Your task to perform on an android device: open app "LinkedIn" (install if not already installed) Image 0: 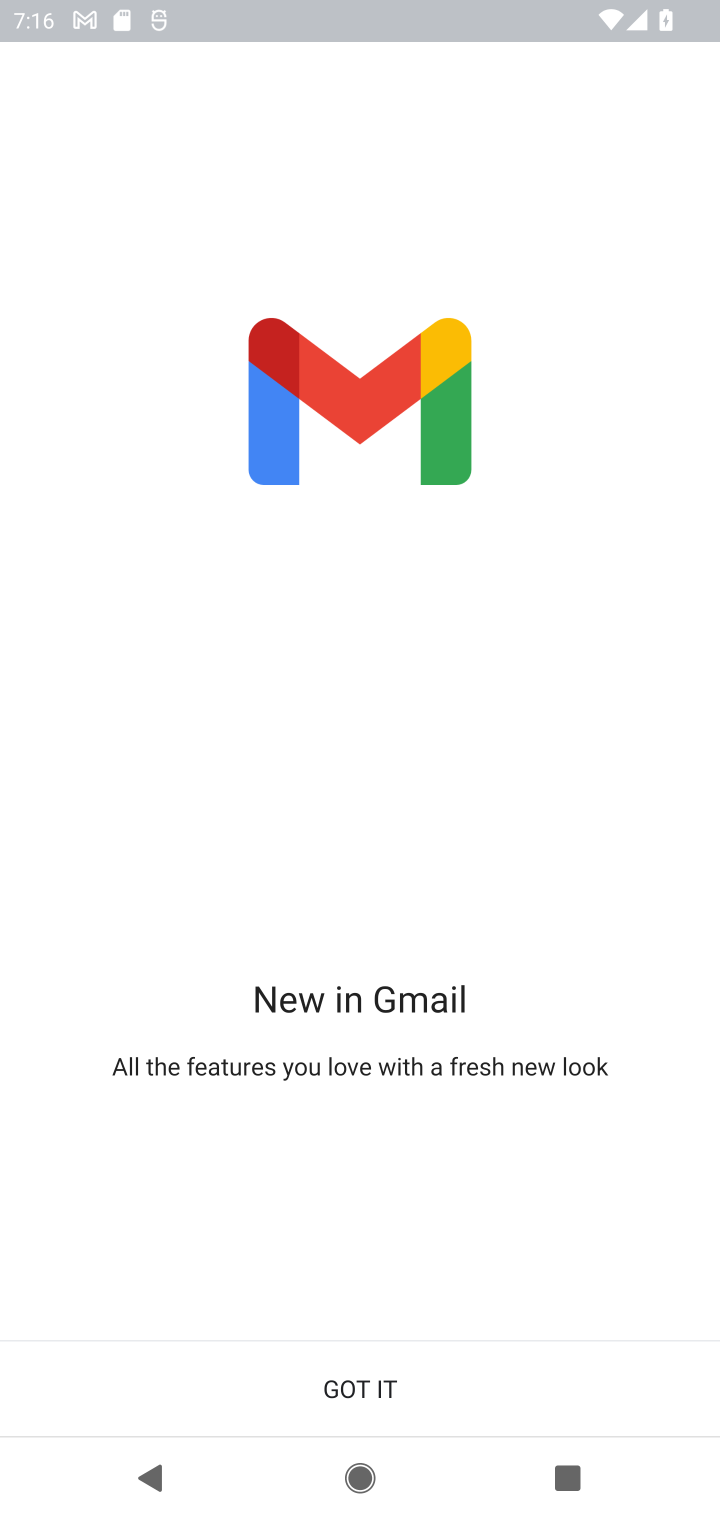
Step 0: press home button
Your task to perform on an android device: open app "LinkedIn" (install if not already installed) Image 1: 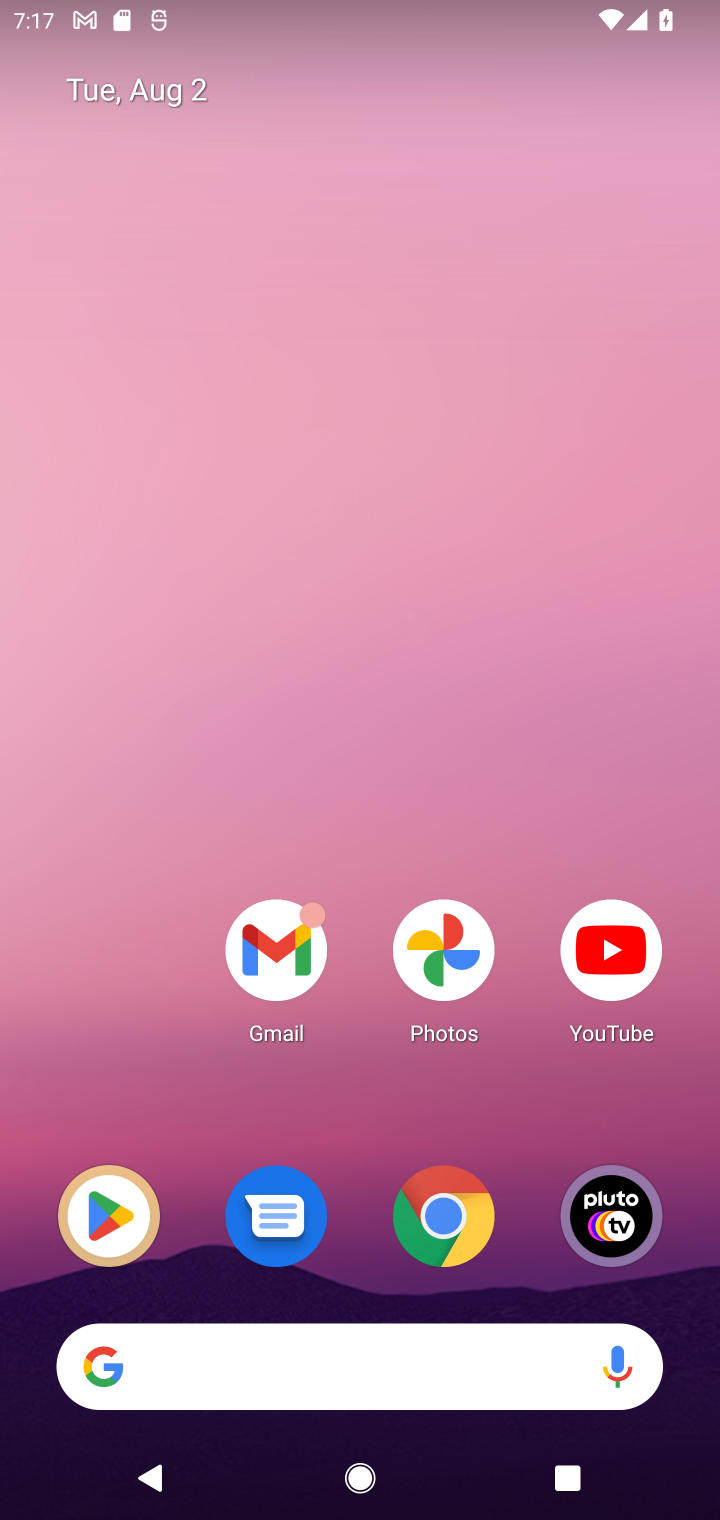
Step 1: click (110, 1222)
Your task to perform on an android device: open app "LinkedIn" (install if not already installed) Image 2: 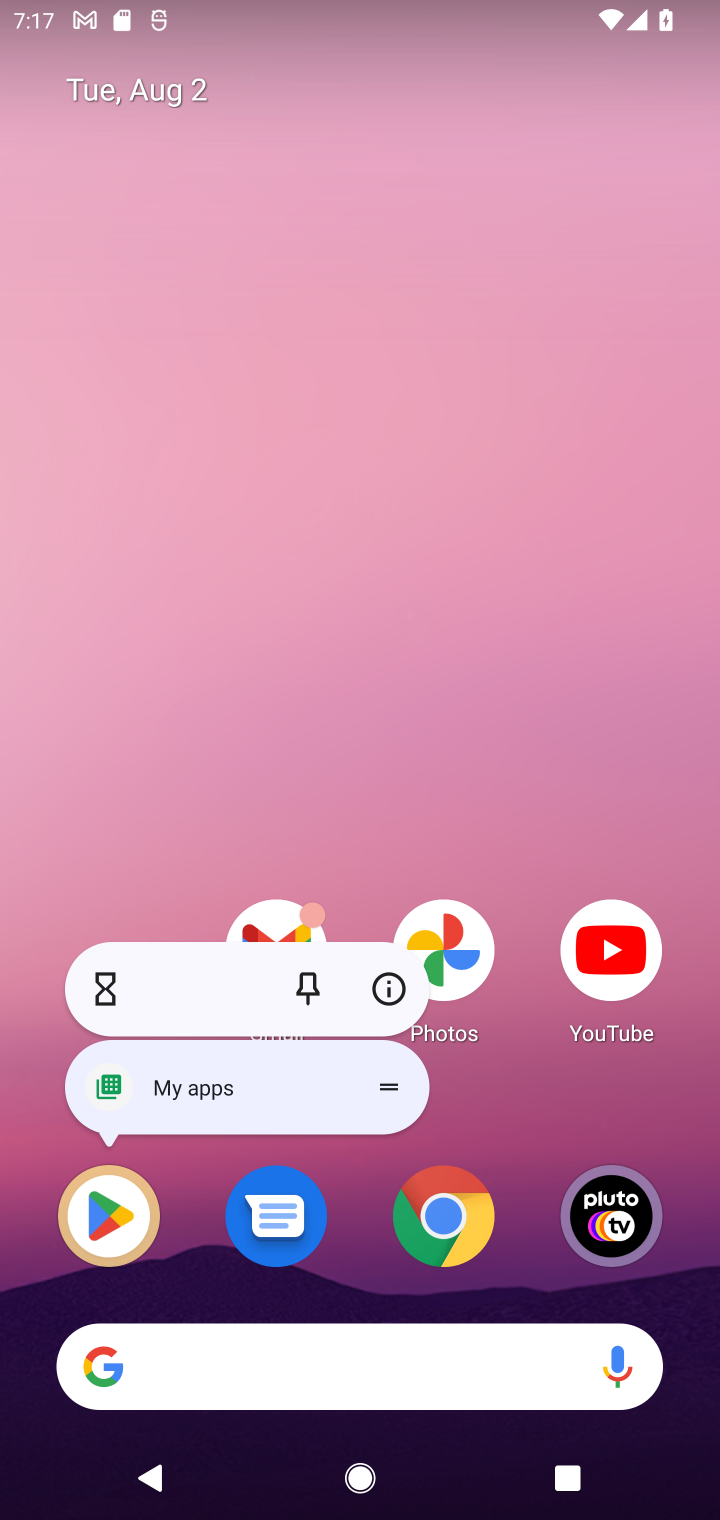
Step 2: click (108, 1222)
Your task to perform on an android device: open app "LinkedIn" (install if not already installed) Image 3: 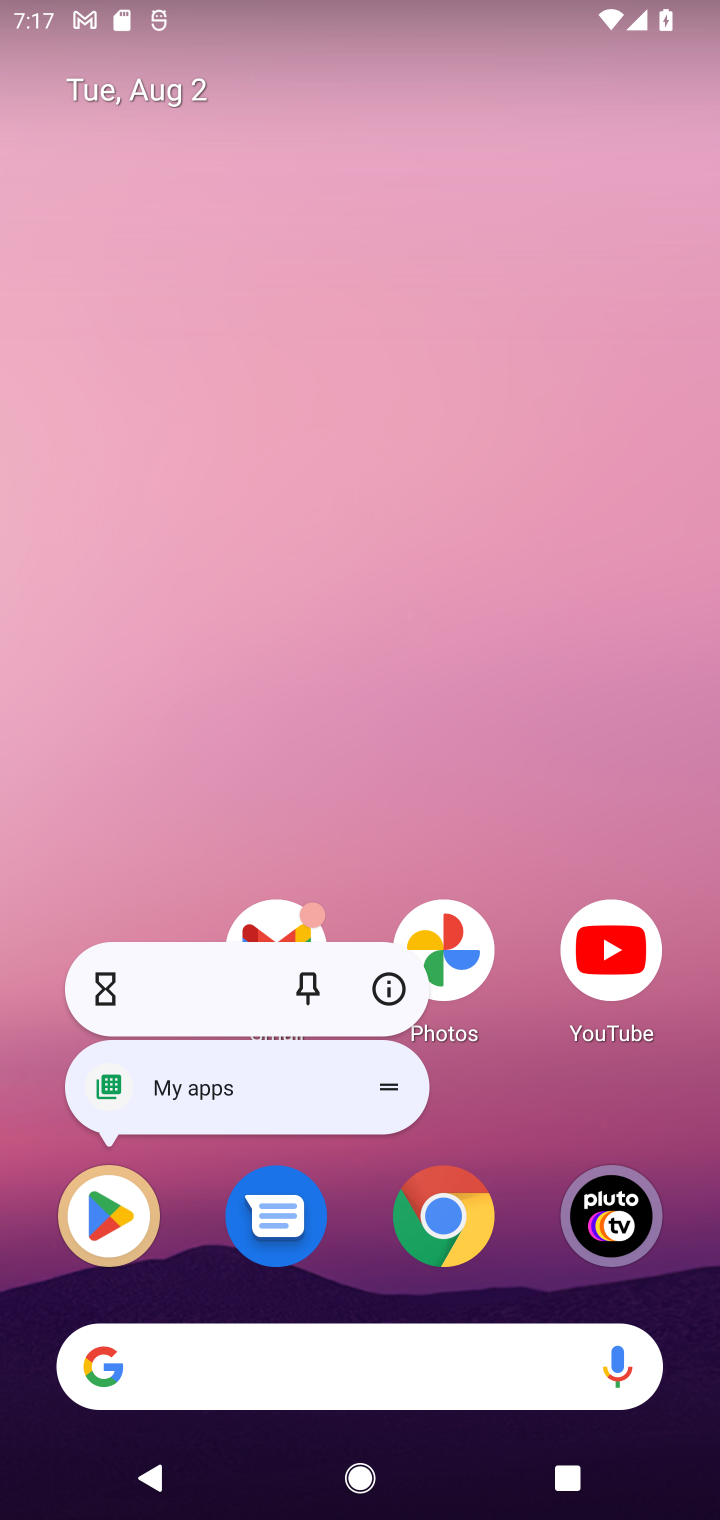
Step 3: click (122, 1194)
Your task to perform on an android device: open app "LinkedIn" (install if not already installed) Image 4: 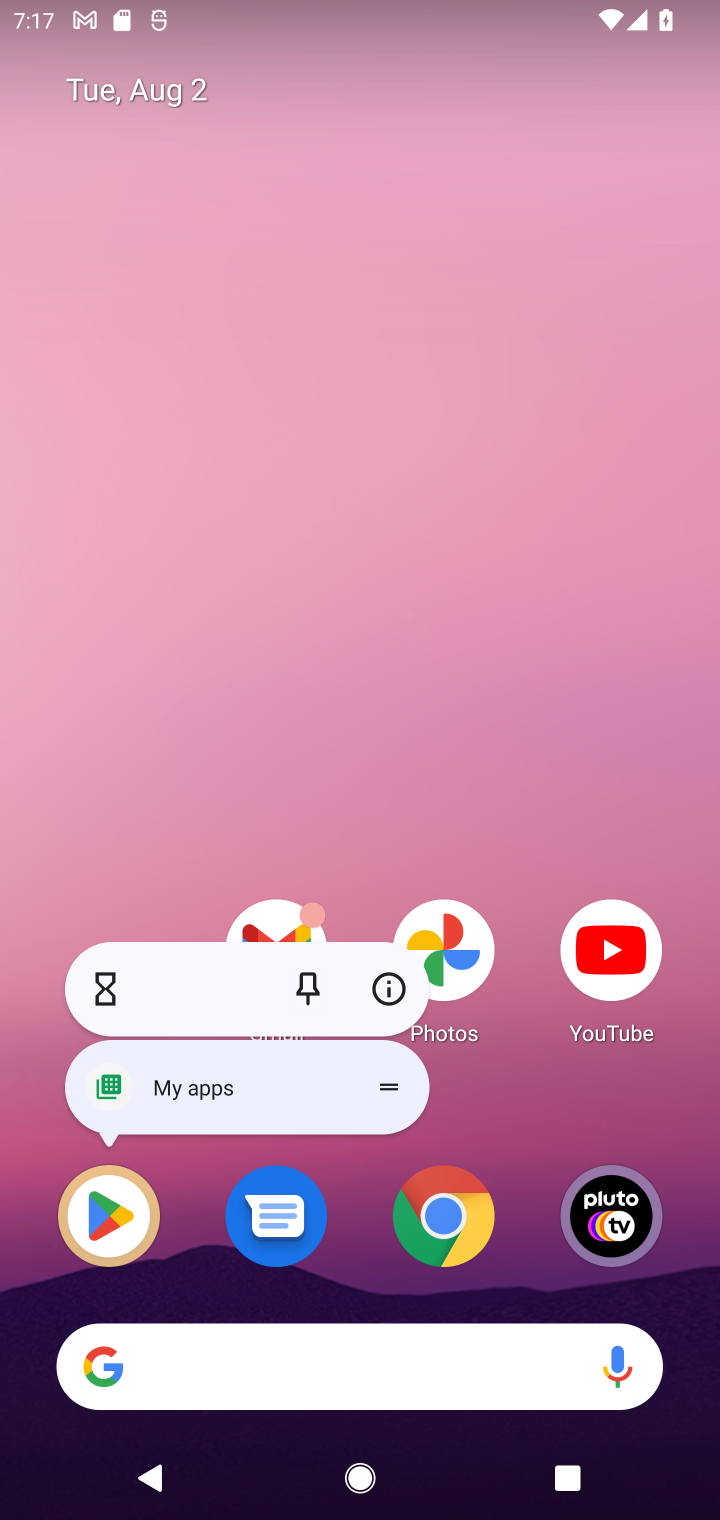
Step 4: click (89, 1221)
Your task to perform on an android device: open app "LinkedIn" (install if not already installed) Image 5: 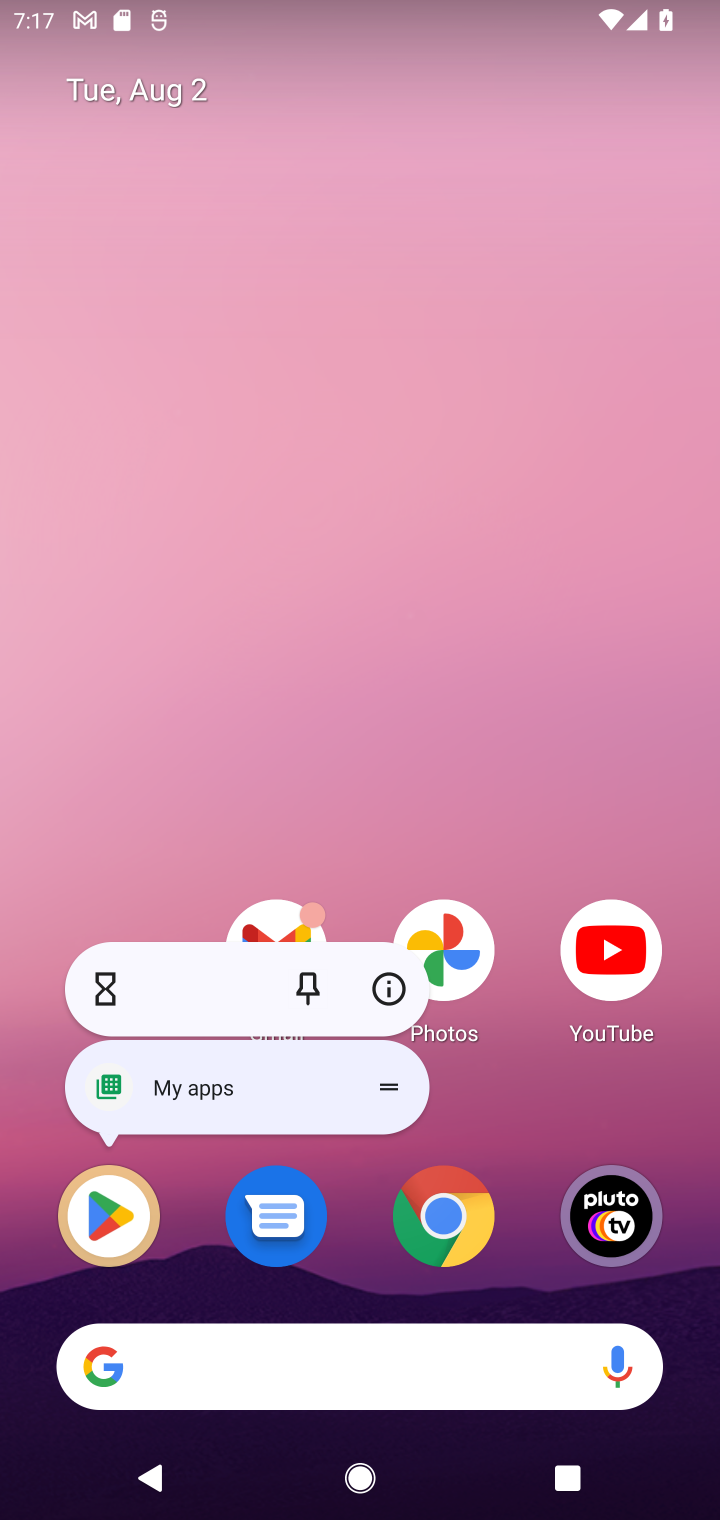
Step 5: click (114, 1208)
Your task to perform on an android device: open app "LinkedIn" (install if not already installed) Image 6: 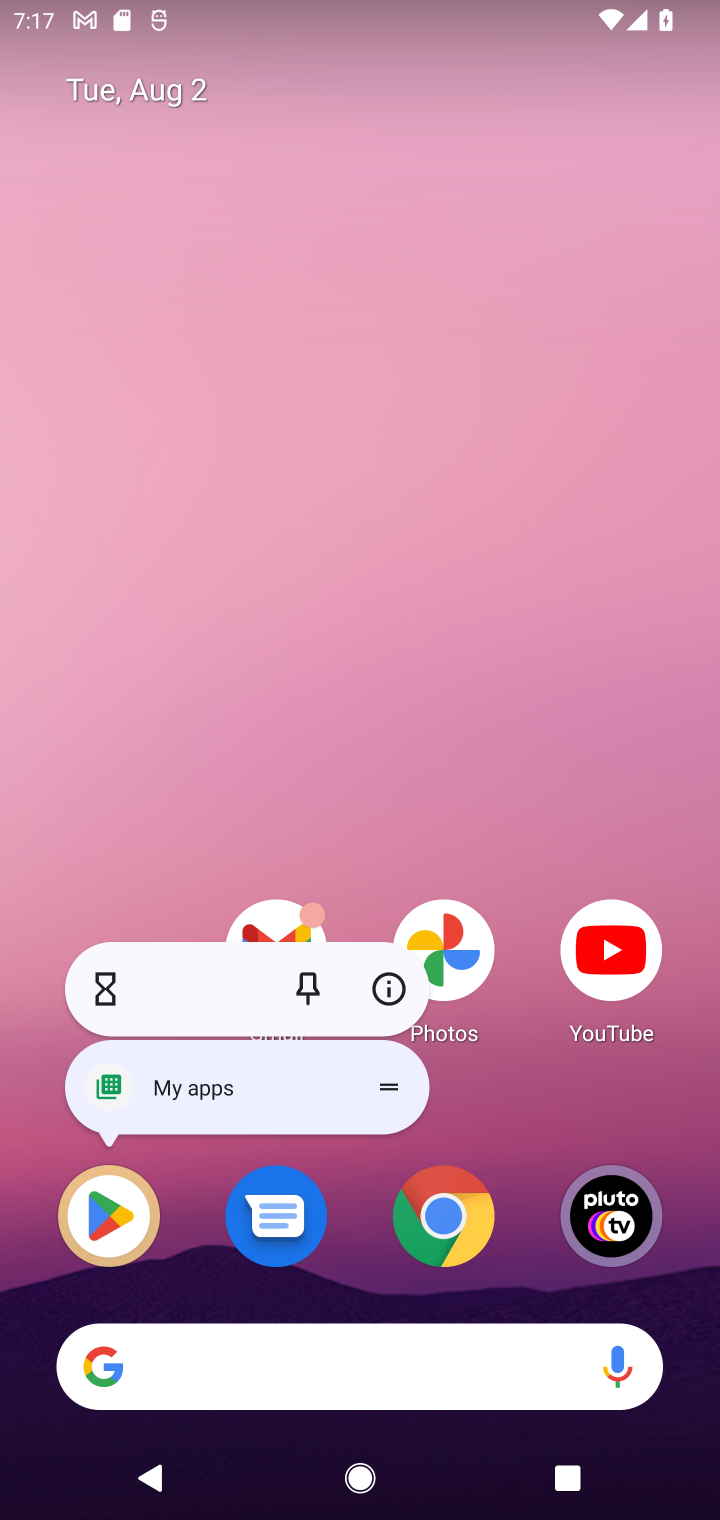
Step 6: click (114, 1213)
Your task to perform on an android device: open app "LinkedIn" (install if not already installed) Image 7: 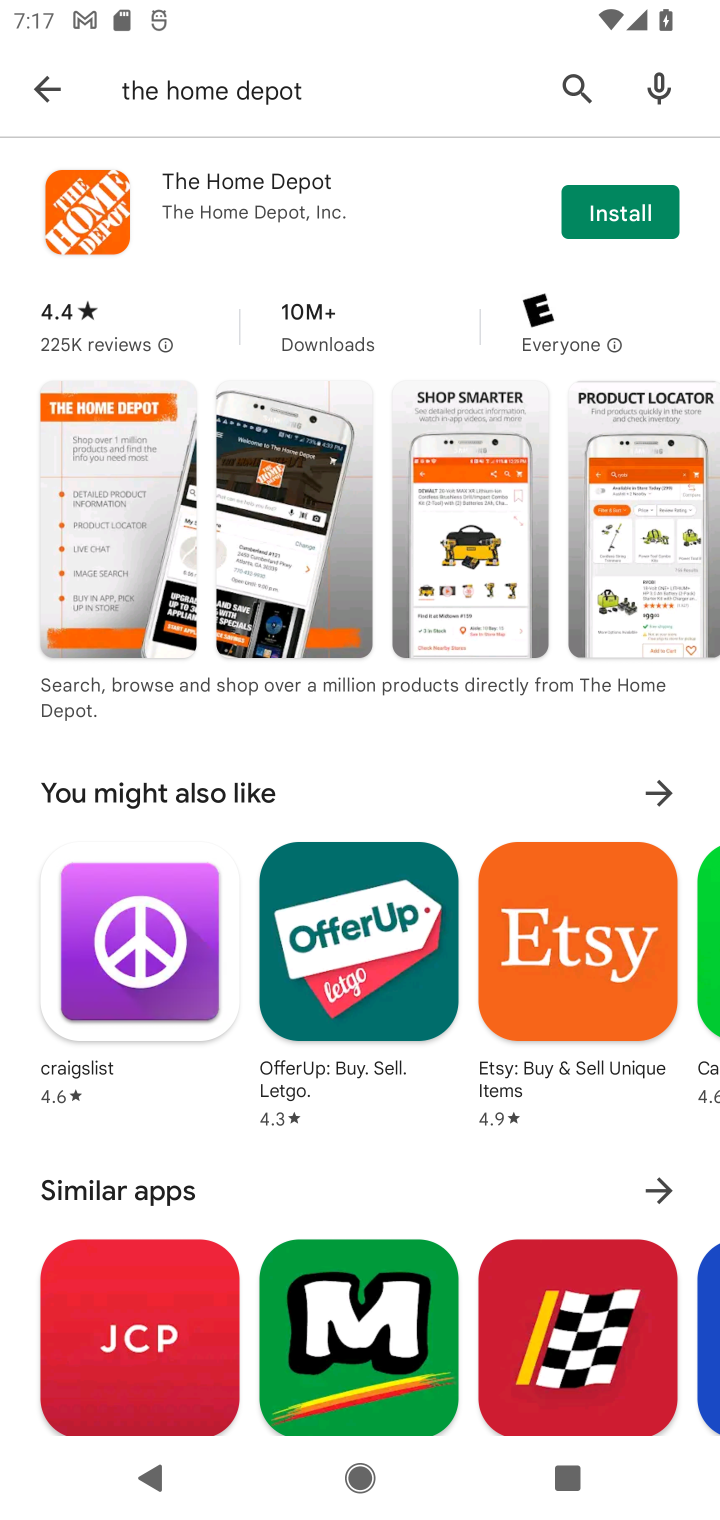
Step 7: click (578, 80)
Your task to perform on an android device: open app "LinkedIn" (install if not already installed) Image 8: 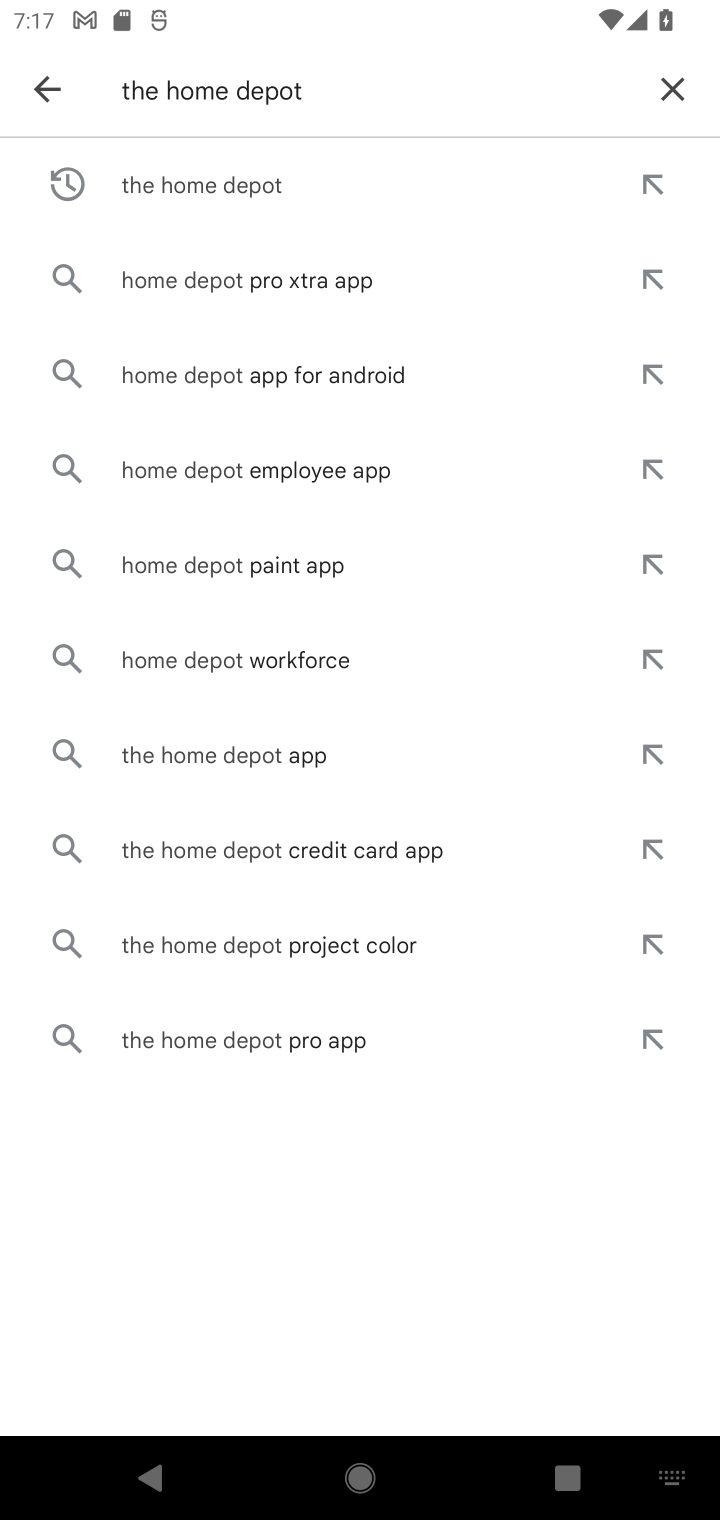
Step 8: click (675, 88)
Your task to perform on an android device: open app "LinkedIn" (install if not already installed) Image 9: 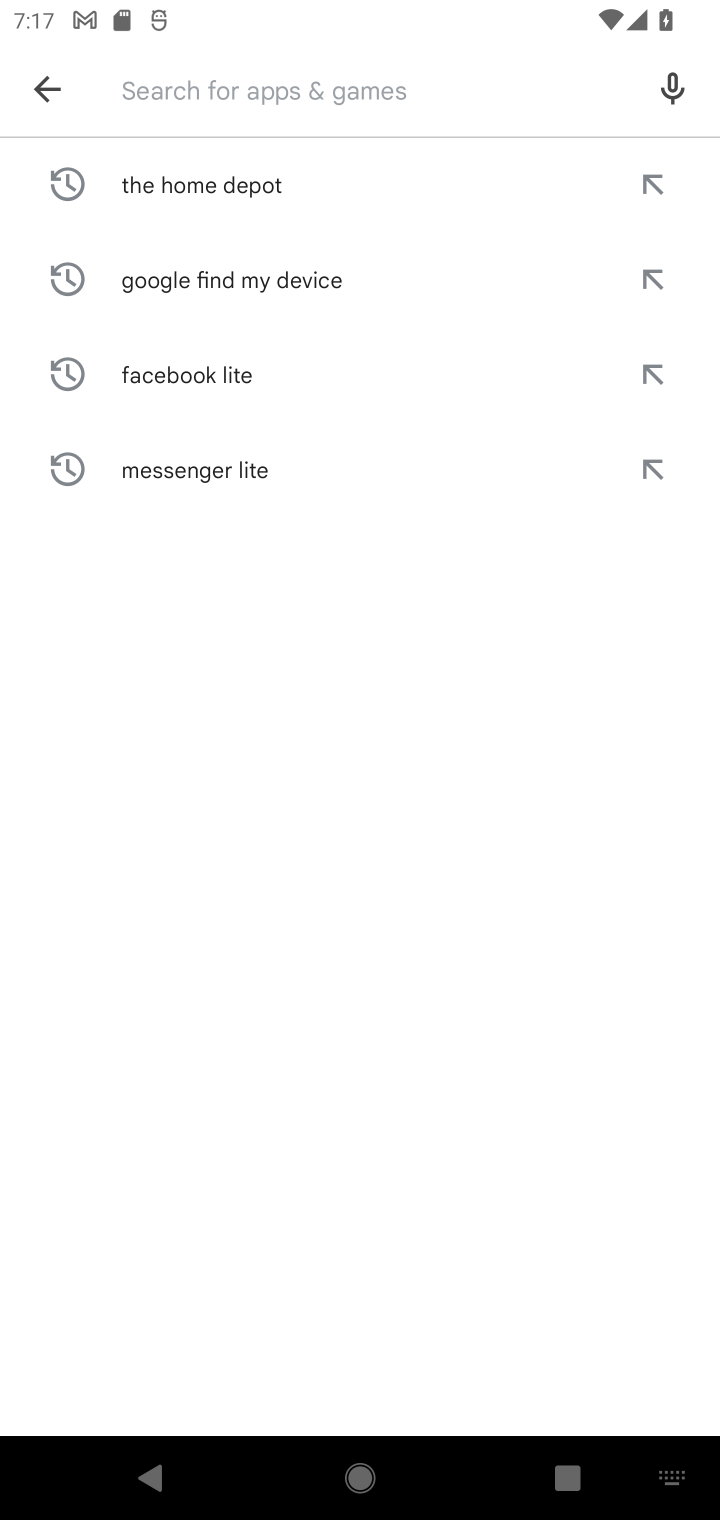
Step 9: type "LinkedIn"
Your task to perform on an android device: open app "LinkedIn" (install if not already installed) Image 10: 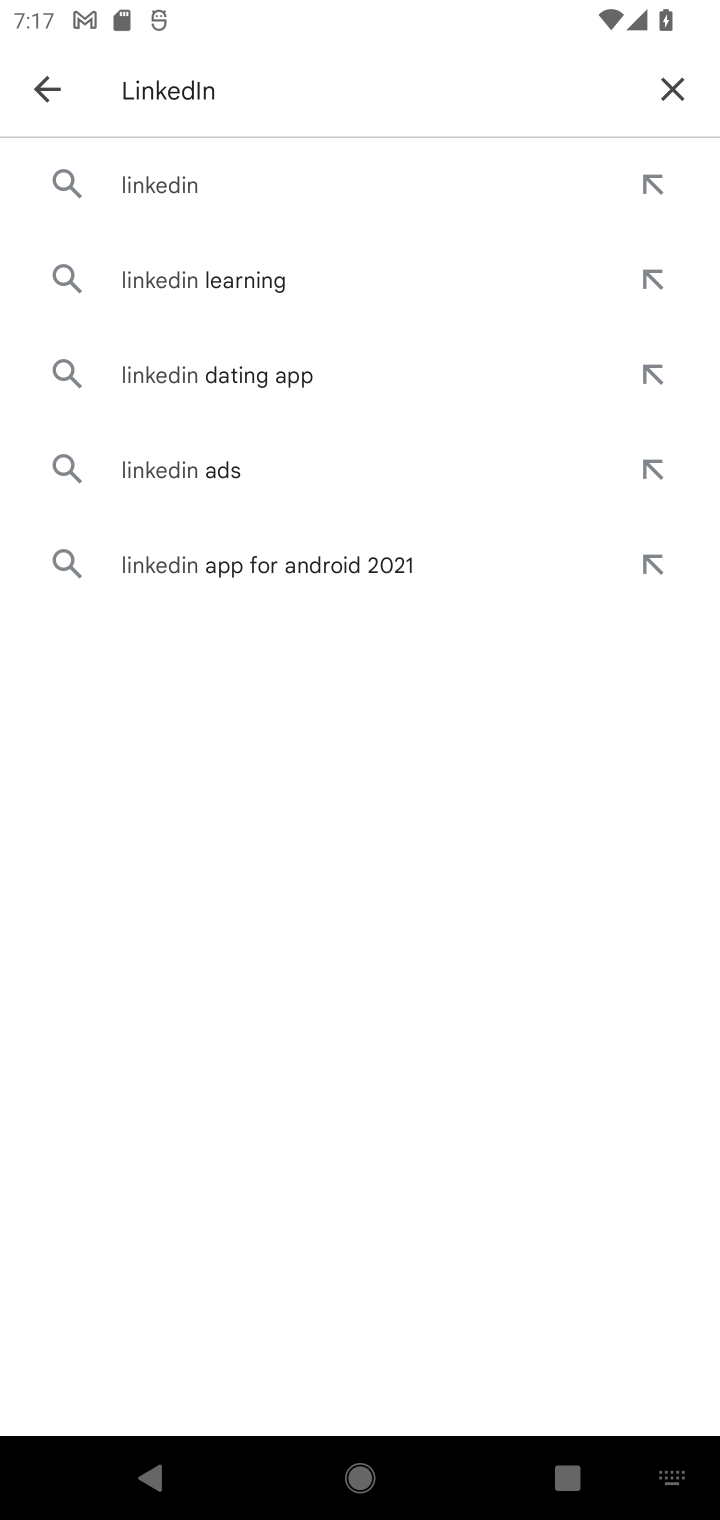
Step 10: click (160, 186)
Your task to perform on an android device: open app "LinkedIn" (install if not already installed) Image 11: 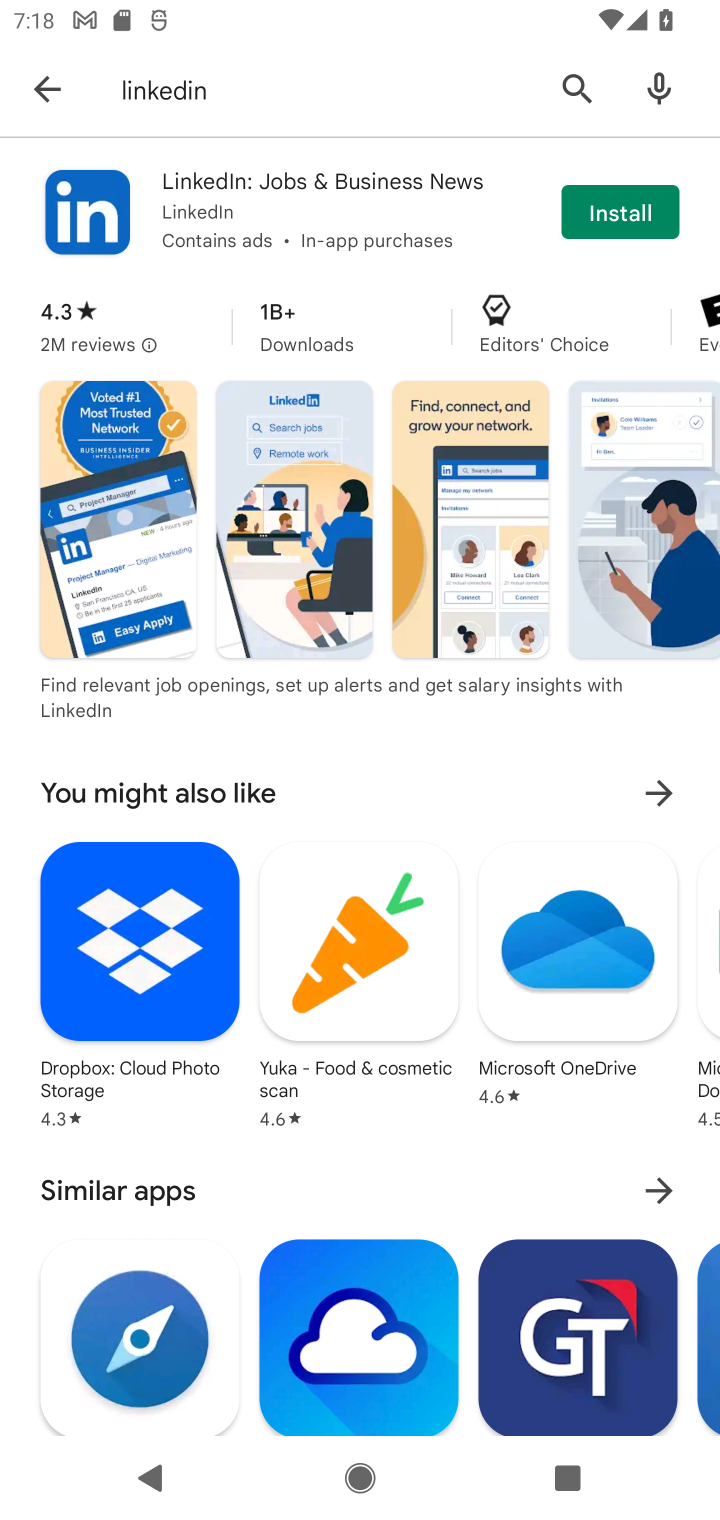
Step 11: click (643, 214)
Your task to perform on an android device: open app "LinkedIn" (install if not already installed) Image 12: 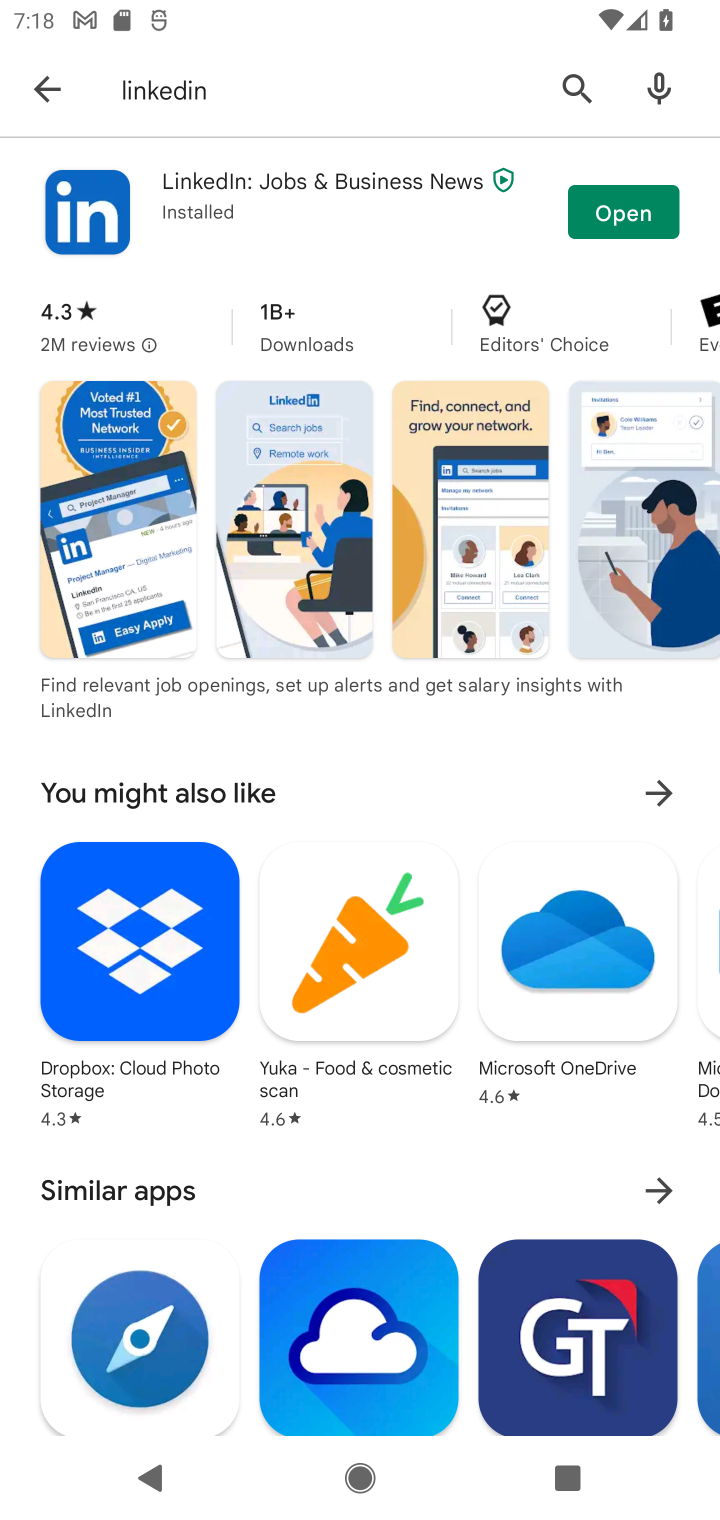
Step 12: click (611, 216)
Your task to perform on an android device: open app "LinkedIn" (install if not already installed) Image 13: 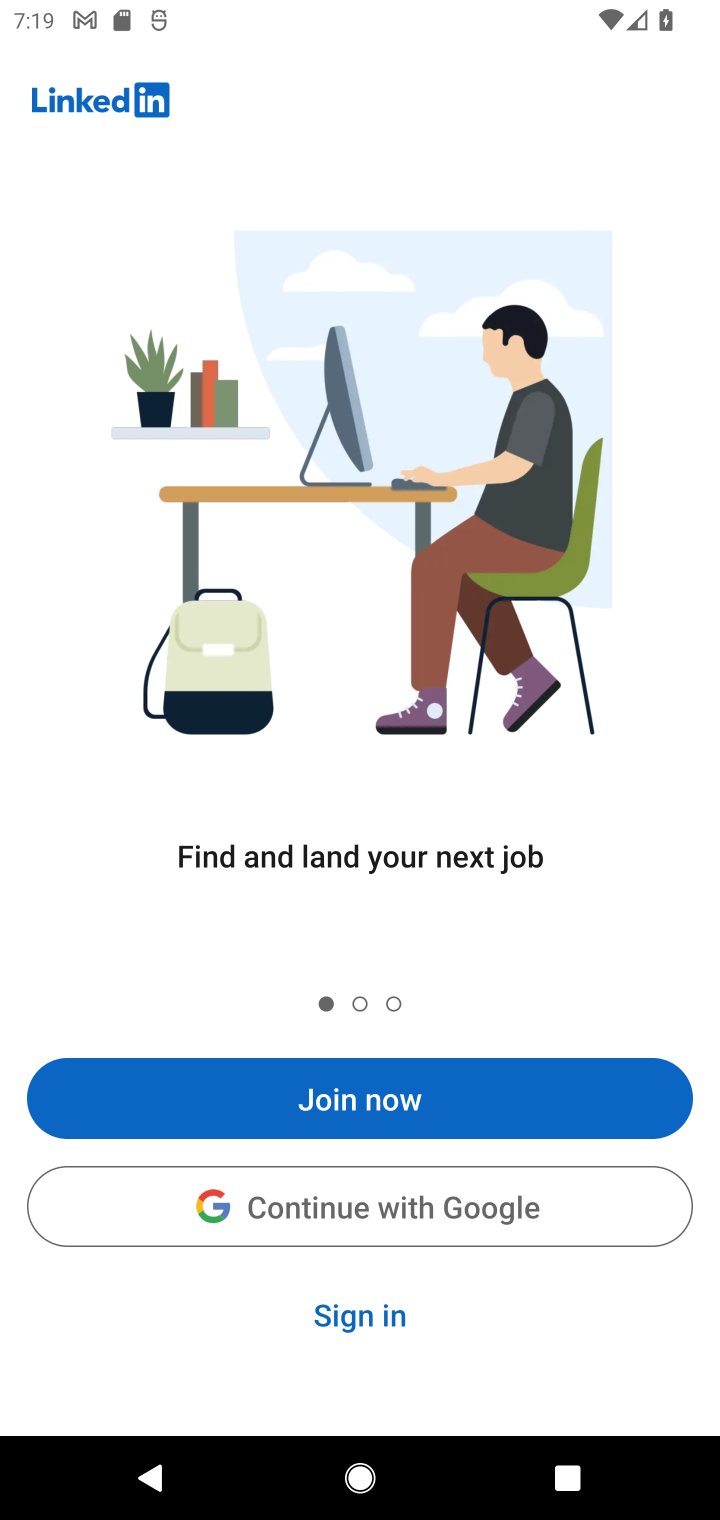
Step 13: task complete